Your task to perform on an android device: turn pop-ups off in chrome Image 0: 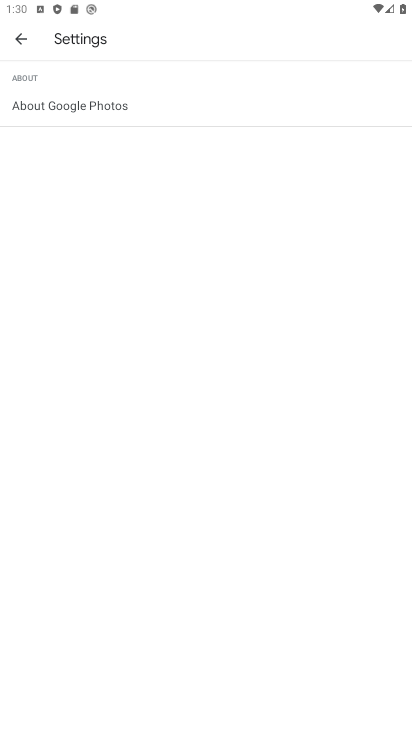
Step 0: press home button
Your task to perform on an android device: turn pop-ups off in chrome Image 1: 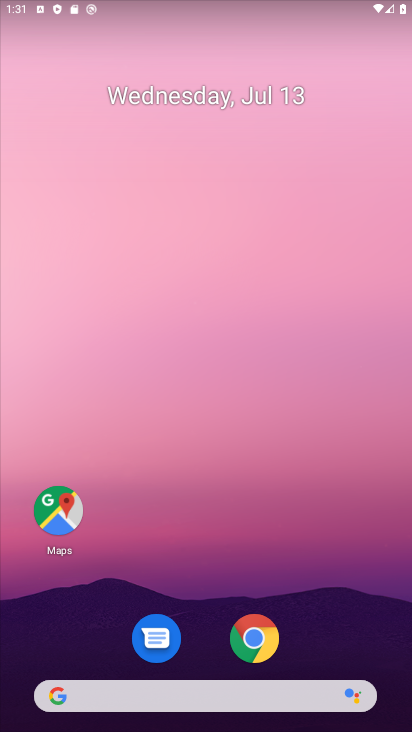
Step 1: click (269, 644)
Your task to perform on an android device: turn pop-ups off in chrome Image 2: 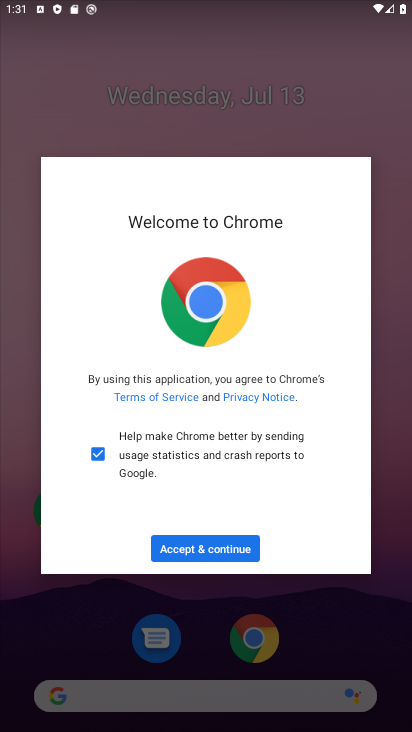
Step 2: click (246, 553)
Your task to perform on an android device: turn pop-ups off in chrome Image 3: 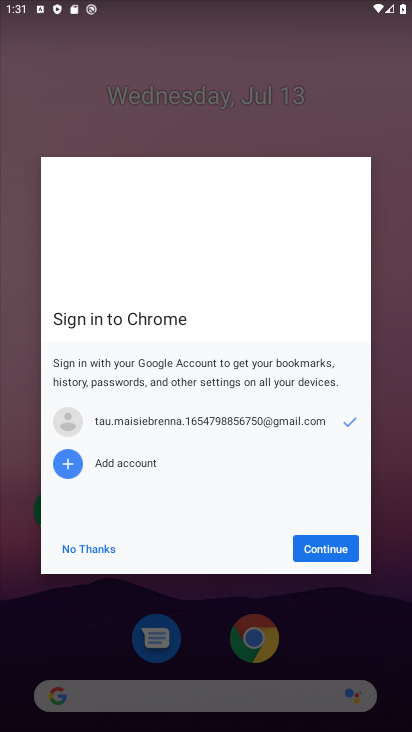
Step 3: click (317, 554)
Your task to perform on an android device: turn pop-ups off in chrome Image 4: 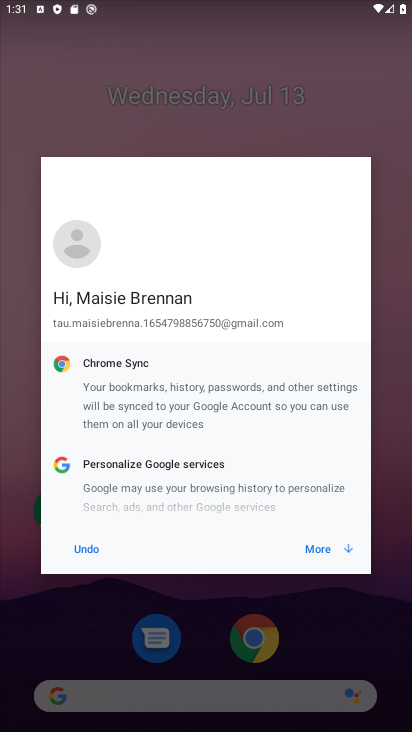
Step 4: click (332, 551)
Your task to perform on an android device: turn pop-ups off in chrome Image 5: 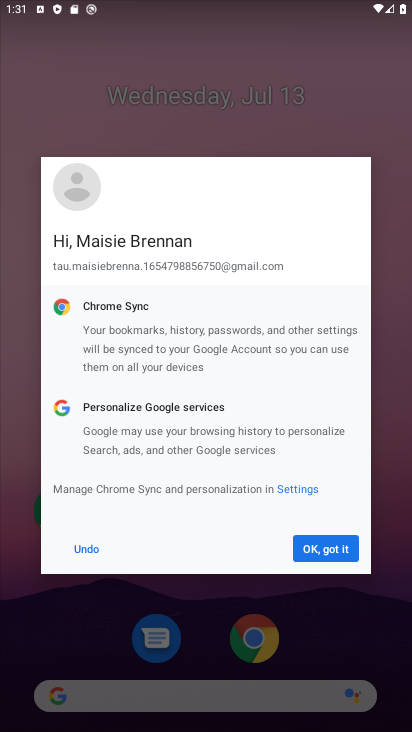
Step 5: click (325, 548)
Your task to perform on an android device: turn pop-ups off in chrome Image 6: 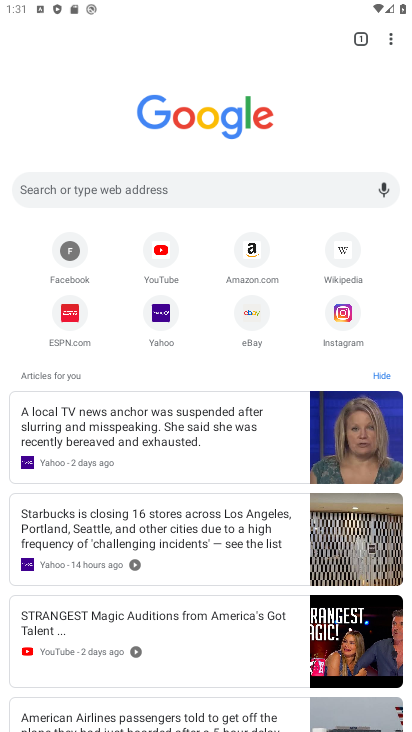
Step 6: click (389, 36)
Your task to perform on an android device: turn pop-ups off in chrome Image 7: 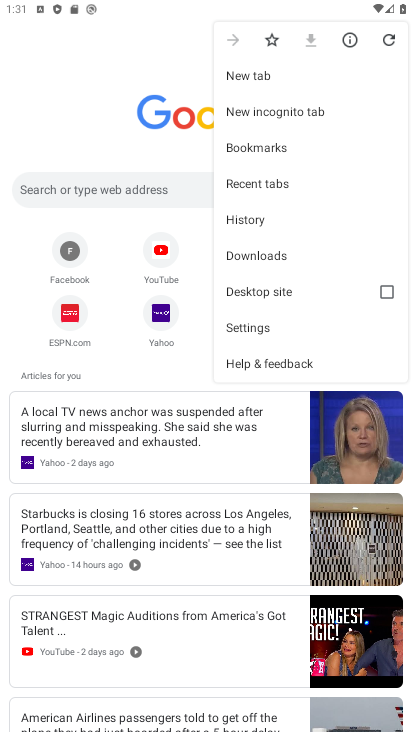
Step 7: click (269, 325)
Your task to perform on an android device: turn pop-ups off in chrome Image 8: 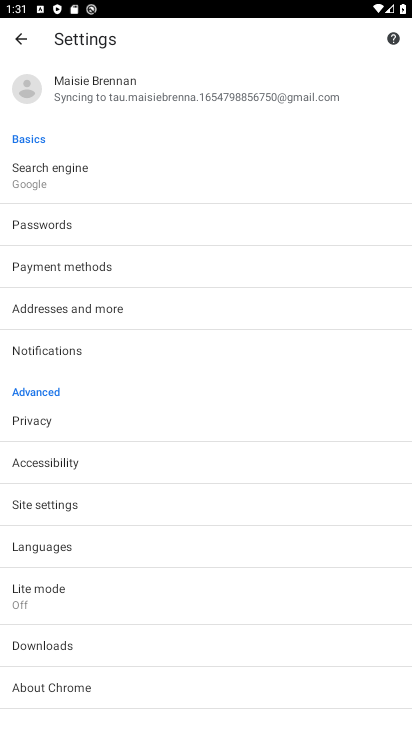
Step 8: click (132, 509)
Your task to perform on an android device: turn pop-ups off in chrome Image 9: 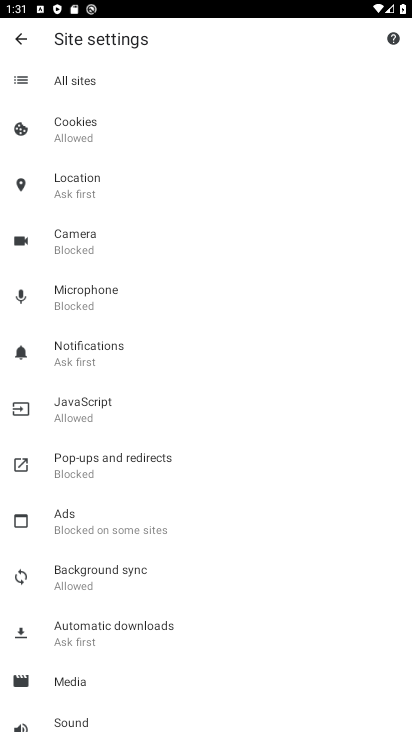
Step 9: click (126, 467)
Your task to perform on an android device: turn pop-ups off in chrome Image 10: 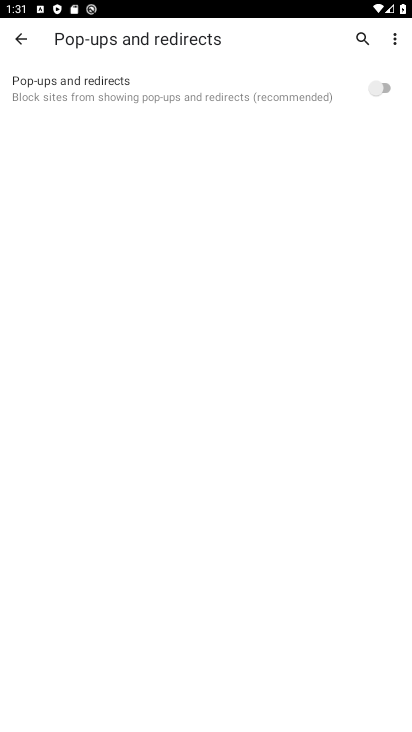
Step 10: task complete